Your task to perform on an android device: open a bookmark in the chrome app Image 0: 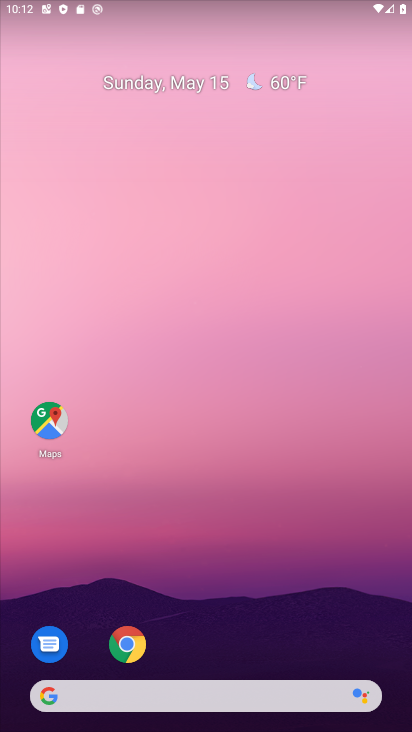
Step 0: click (136, 639)
Your task to perform on an android device: open a bookmark in the chrome app Image 1: 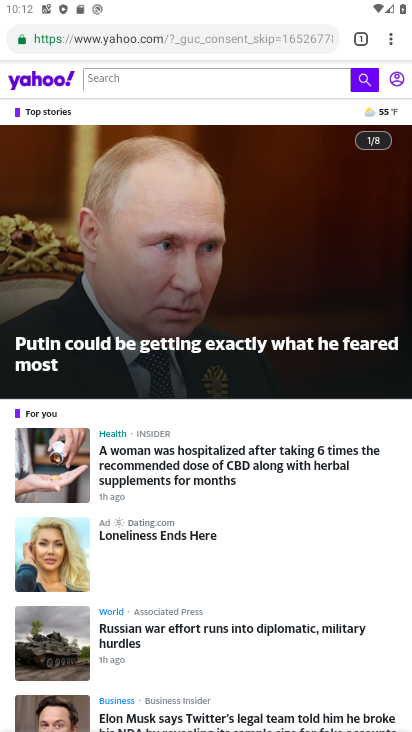
Step 1: click (388, 40)
Your task to perform on an android device: open a bookmark in the chrome app Image 2: 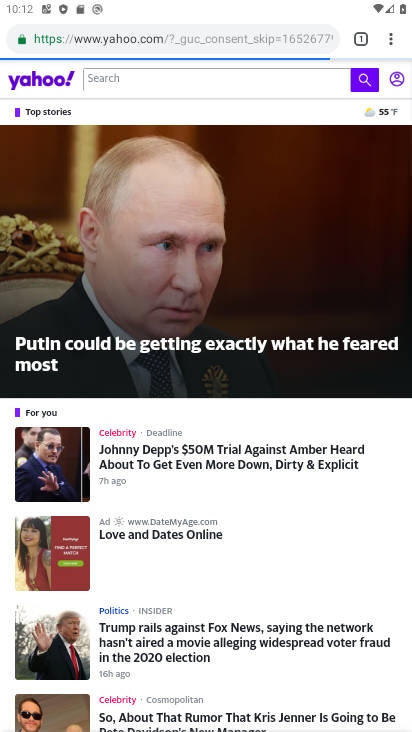
Step 2: click (404, 43)
Your task to perform on an android device: open a bookmark in the chrome app Image 3: 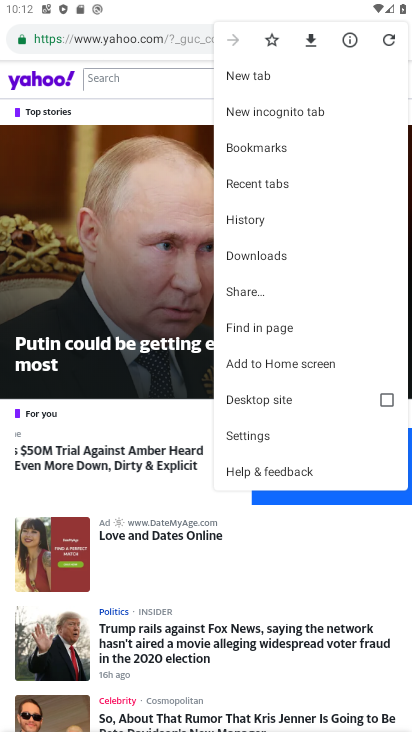
Step 3: click (252, 154)
Your task to perform on an android device: open a bookmark in the chrome app Image 4: 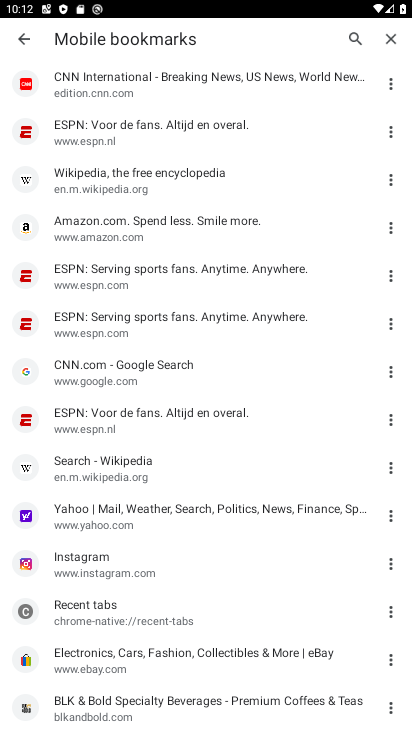
Step 4: task complete